Your task to perform on an android device: Open the web browser Image 0: 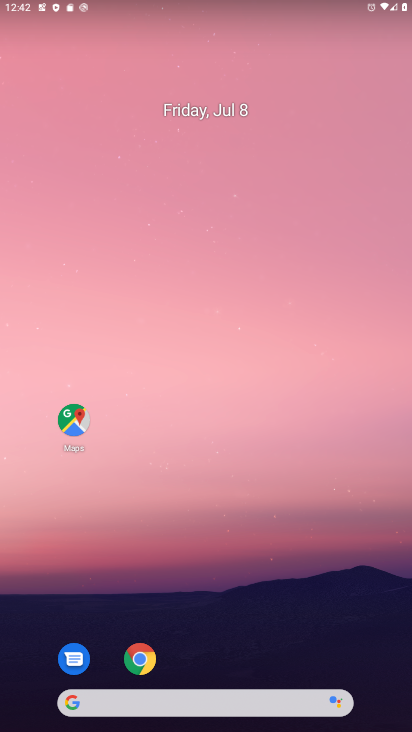
Step 0: click (142, 656)
Your task to perform on an android device: Open the web browser Image 1: 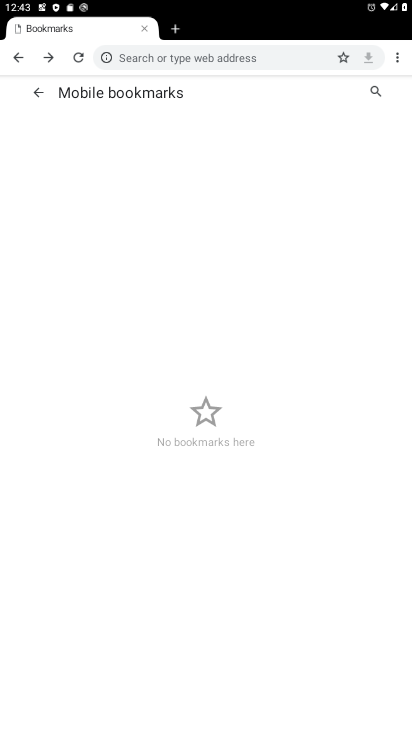
Step 1: click (40, 92)
Your task to perform on an android device: Open the web browser Image 2: 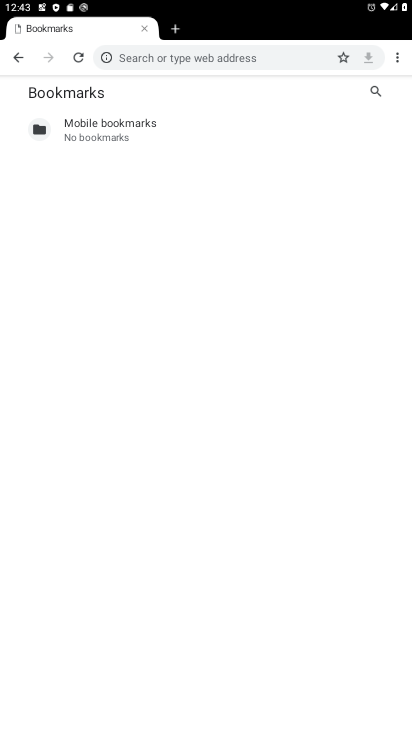
Step 2: click (12, 55)
Your task to perform on an android device: Open the web browser Image 3: 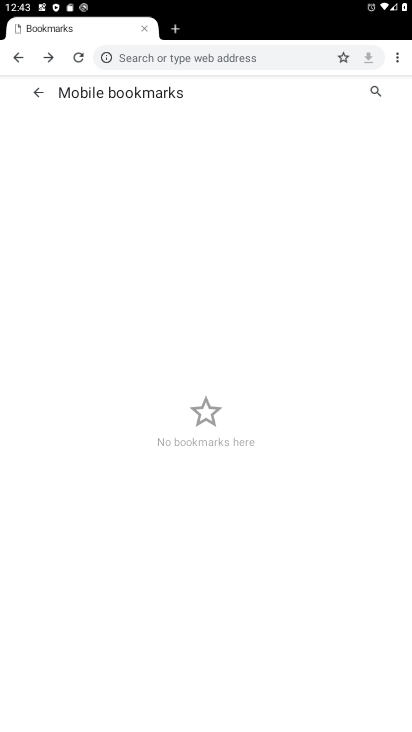
Step 3: click (33, 91)
Your task to perform on an android device: Open the web browser Image 4: 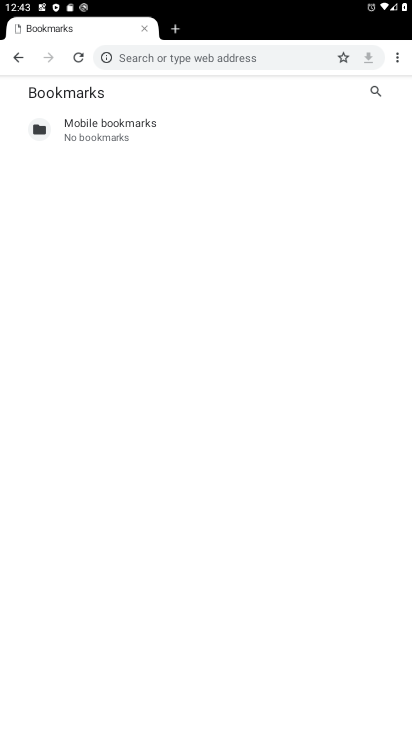
Step 4: click (12, 55)
Your task to perform on an android device: Open the web browser Image 5: 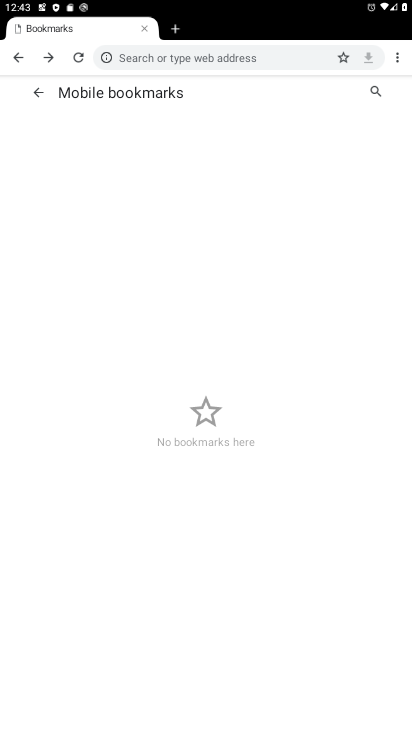
Step 5: click (18, 51)
Your task to perform on an android device: Open the web browser Image 6: 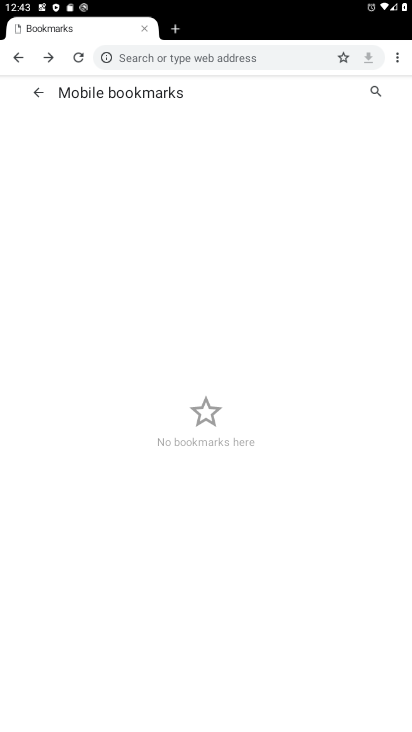
Step 6: click (18, 51)
Your task to perform on an android device: Open the web browser Image 7: 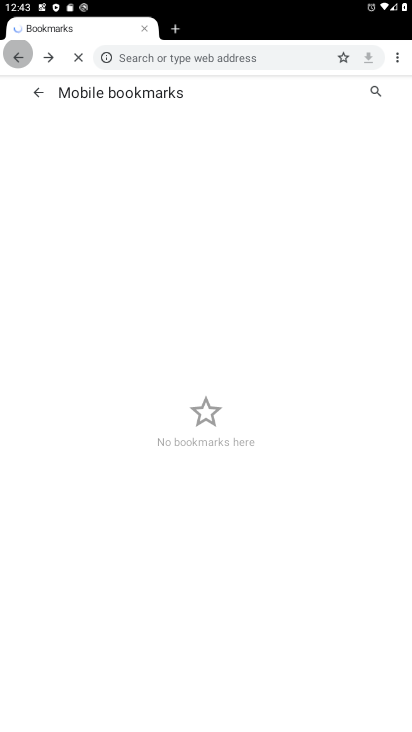
Step 7: click (18, 51)
Your task to perform on an android device: Open the web browser Image 8: 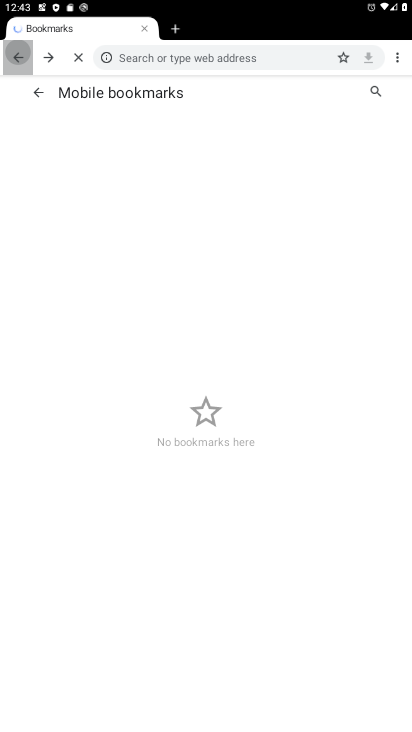
Step 8: click (18, 51)
Your task to perform on an android device: Open the web browser Image 9: 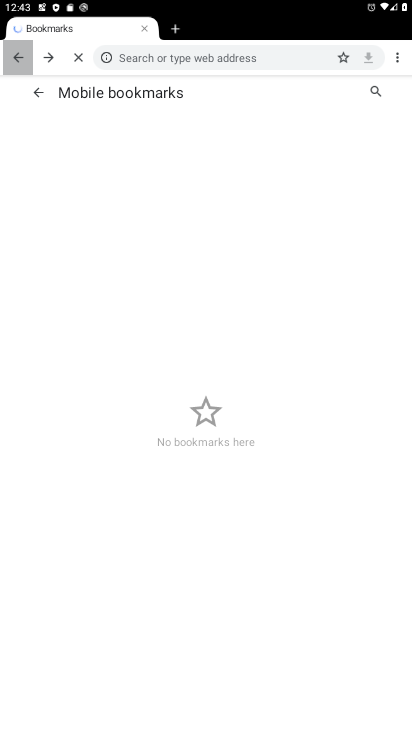
Step 9: click (18, 51)
Your task to perform on an android device: Open the web browser Image 10: 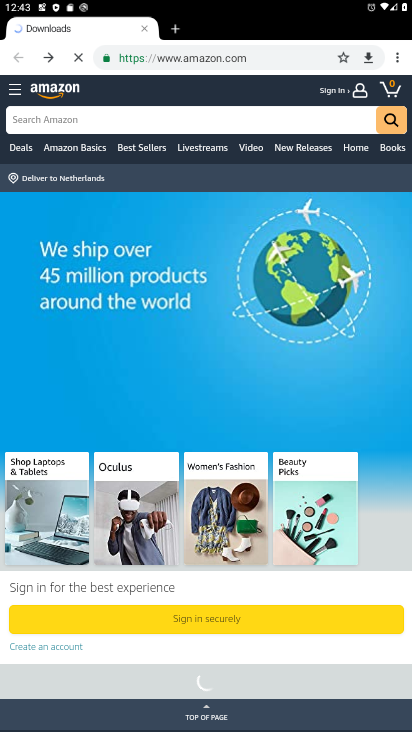
Step 10: task complete